Your task to perform on an android device: Open calendar and show me the first week of next month Image 0: 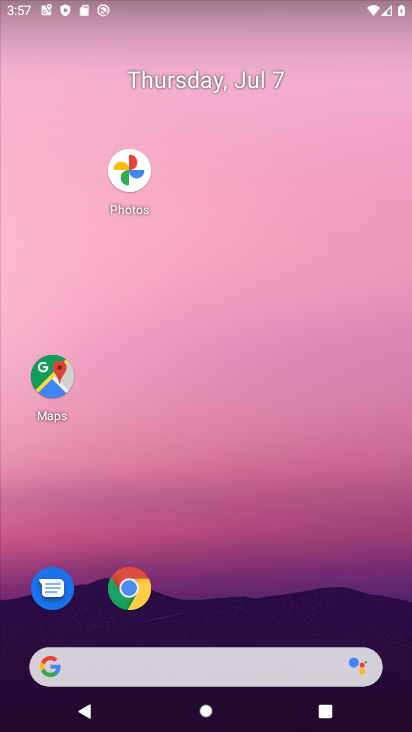
Step 0: click (126, 184)
Your task to perform on an android device: Open calendar and show me the first week of next month Image 1: 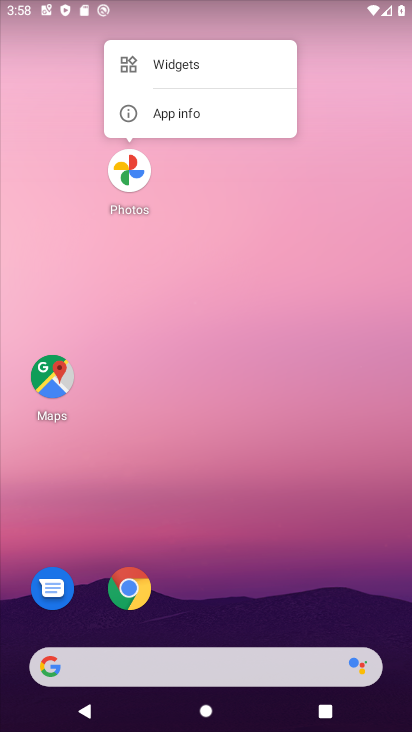
Step 1: drag from (151, 401) to (168, 16)
Your task to perform on an android device: Open calendar and show me the first week of next month Image 2: 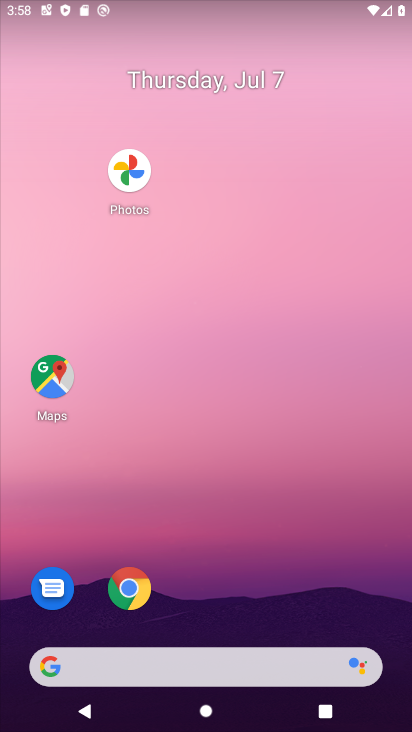
Step 2: drag from (268, 502) to (174, 8)
Your task to perform on an android device: Open calendar and show me the first week of next month Image 3: 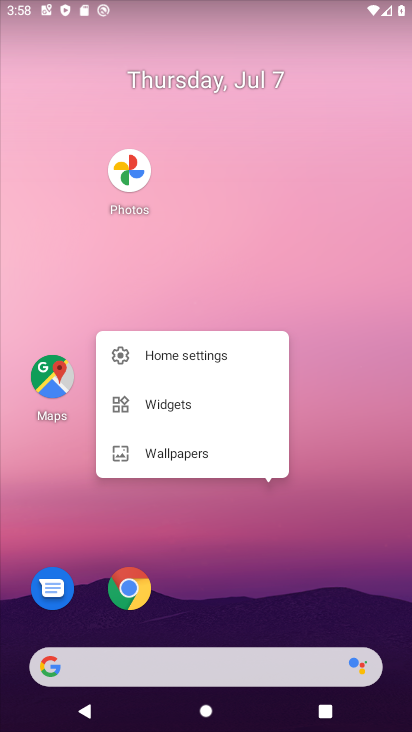
Step 3: drag from (186, 332) to (132, 1)
Your task to perform on an android device: Open calendar and show me the first week of next month Image 4: 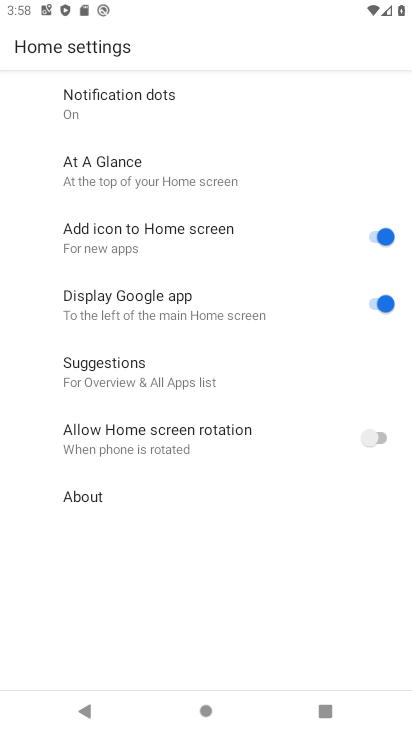
Step 4: drag from (190, 273) to (84, 6)
Your task to perform on an android device: Open calendar and show me the first week of next month Image 5: 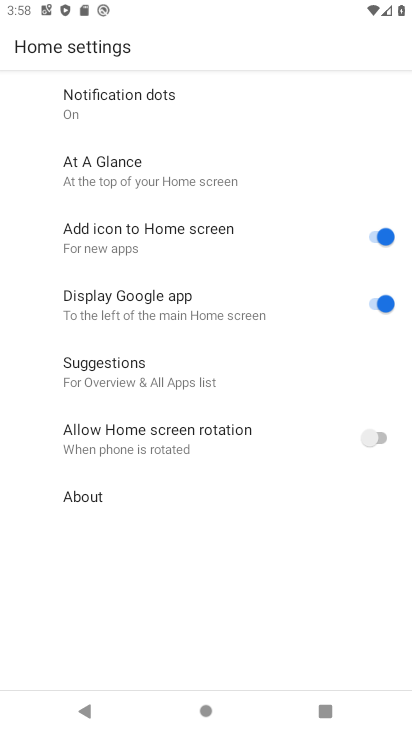
Step 5: click (236, 338)
Your task to perform on an android device: Open calendar and show me the first week of next month Image 6: 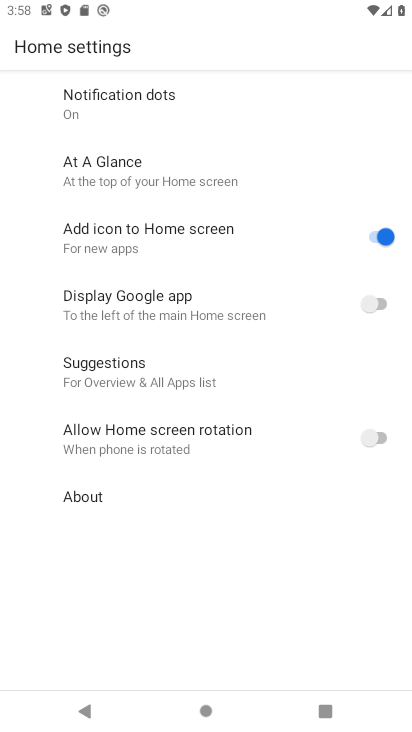
Step 6: drag from (134, 50) to (124, 3)
Your task to perform on an android device: Open calendar and show me the first week of next month Image 7: 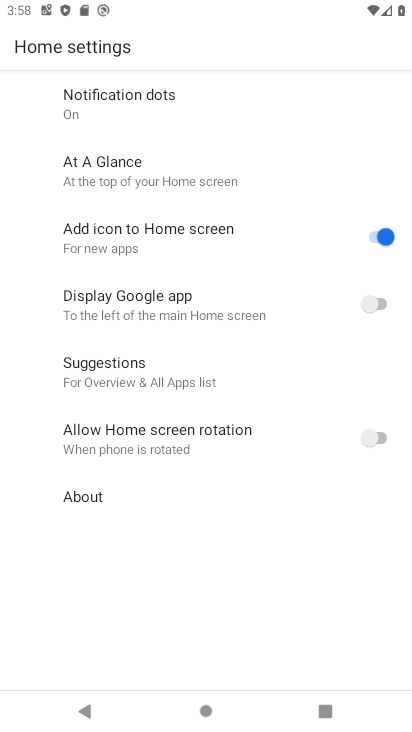
Step 7: drag from (162, 342) to (139, 11)
Your task to perform on an android device: Open calendar and show me the first week of next month Image 8: 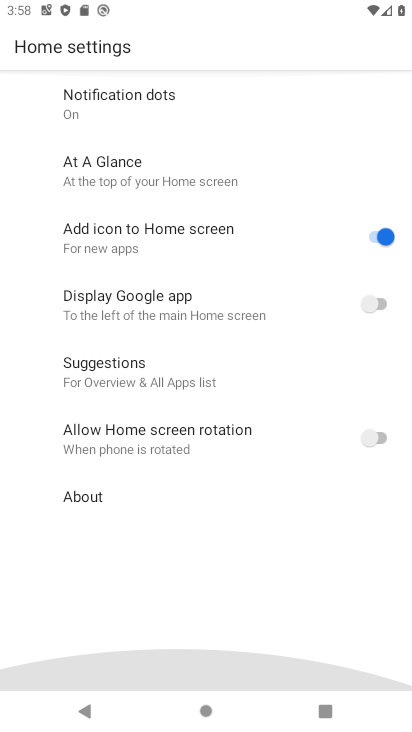
Step 8: press back button
Your task to perform on an android device: Open calendar and show me the first week of next month Image 9: 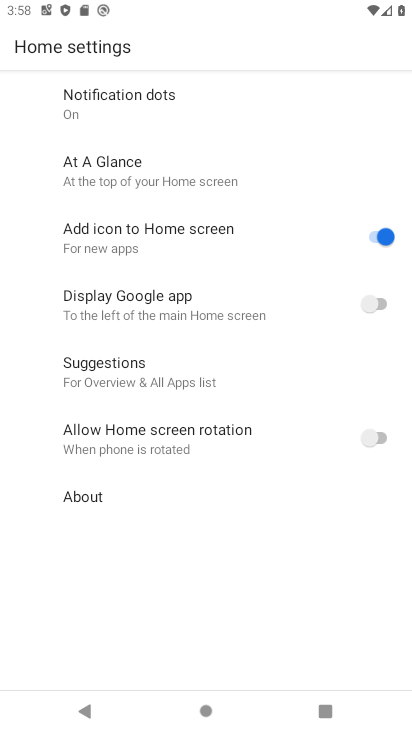
Step 9: press home button
Your task to perform on an android device: Open calendar and show me the first week of next month Image 10: 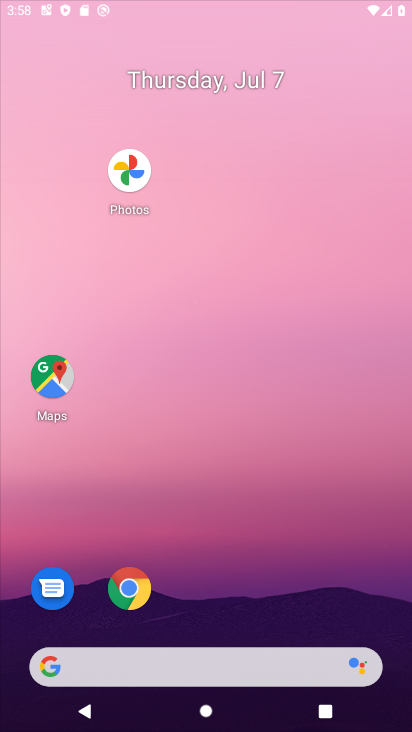
Step 10: press back button
Your task to perform on an android device: Open calendar and show me the first week of next month Image 11: 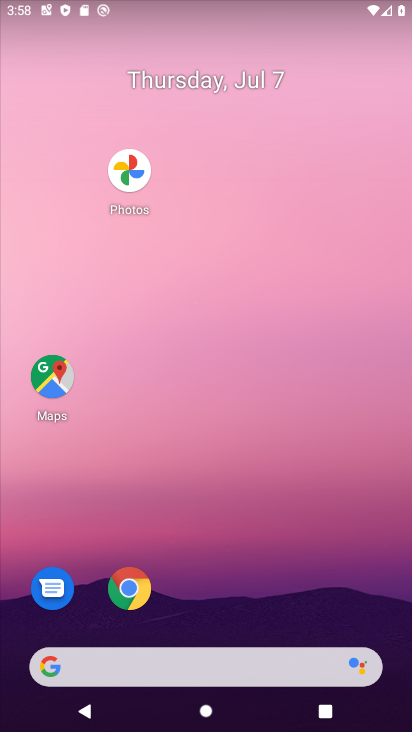
Step 11: drag from (249, 470) to (255, 3)
Your task to perform on an android device: Open calendar and show me the first week of next month Image 12: 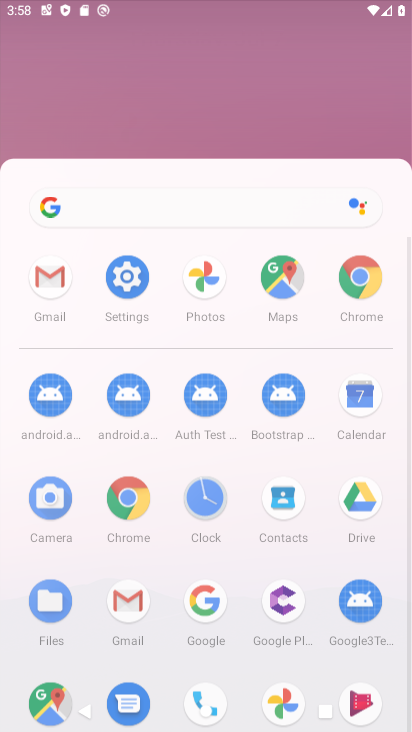
Step 12: drag from (310, 395) to (330, 40)
Your task to perform on an android device: Open calendar and show me the first week of next month Image 13: 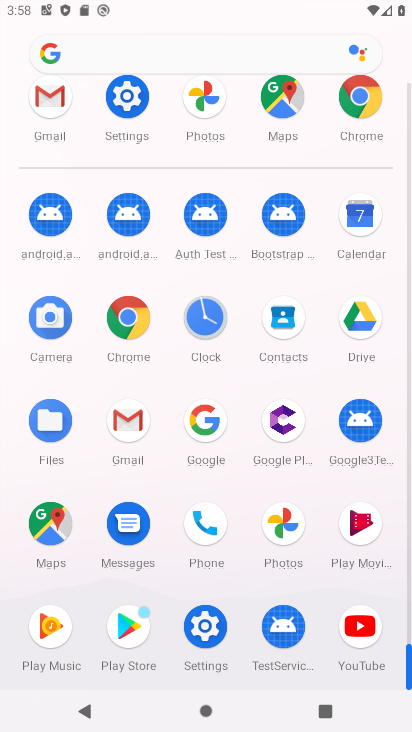
Step 13: click (373, 215)
Your task to perform on an android device: Open calendar and show me the first week of next month Image 14: 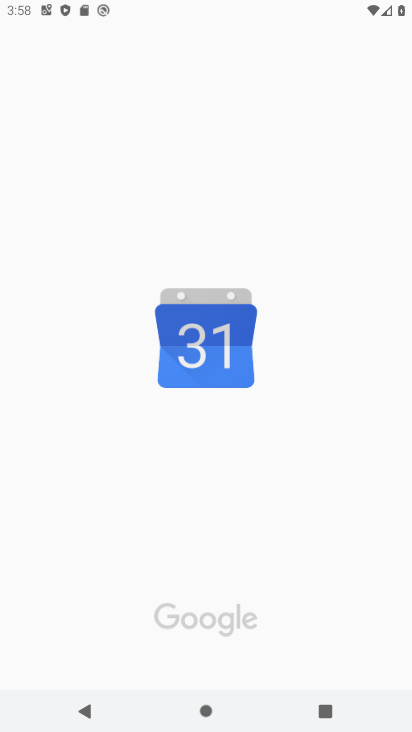
Step 14: click (369, 215)
Your task to perform on an android device: Open calendar and show me the first week of next month Image 15: 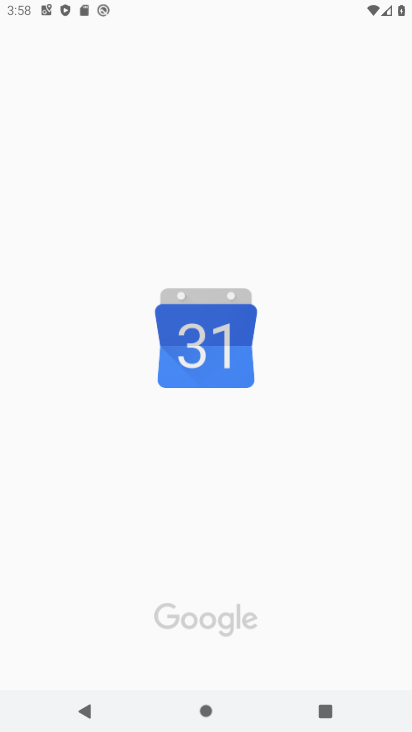
Step 15: drag from (358, 216) to (375, 187)
Your task to perform on an android device: Open calendar and show me the first week of next month Image 16: 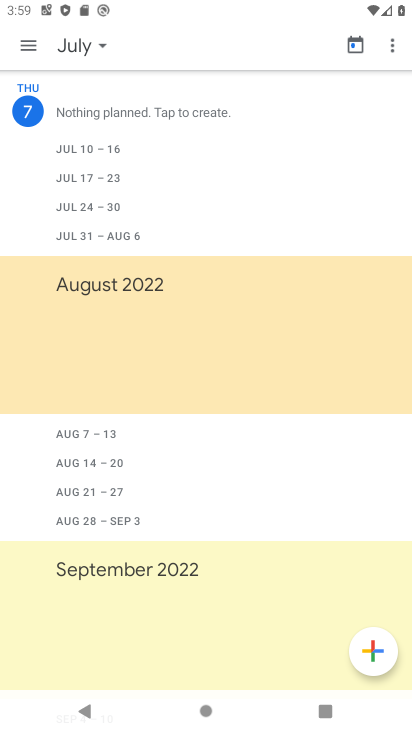
Step 16: click (374, 186)
Your task to perform on an android device: Open calendar and show me the first week of next month Image 17: 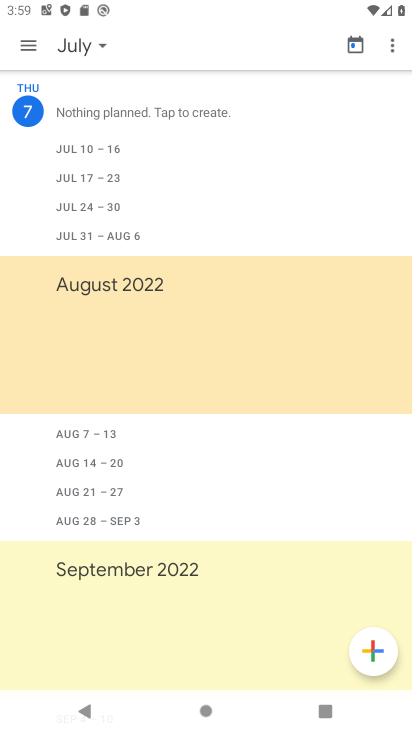
Step 17: click (366, 214)
Your task to perform on an android device: Open calendar and show me the first week of next month Image 18: 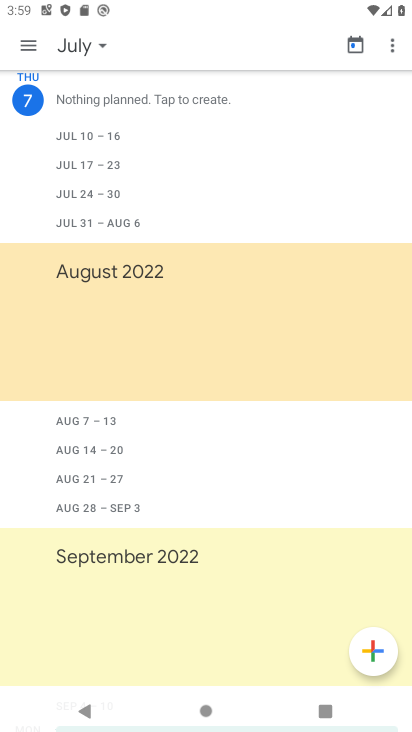
Step 18: click (364, 209)
Your task to perform on an android device: Open calendar and show me the first week of next month Image 19: 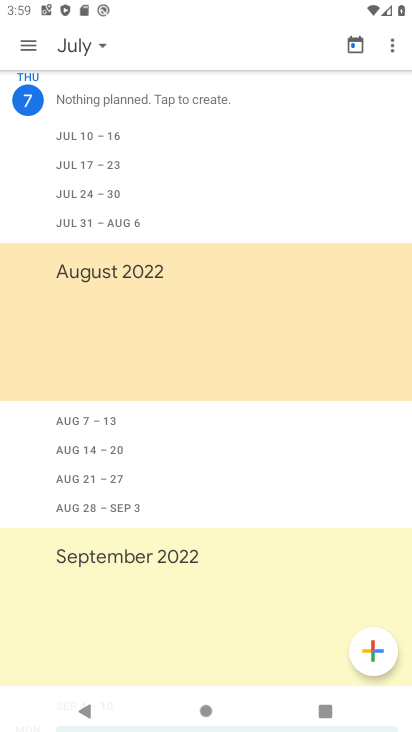
Step 19: click (94, 413)
Your task to perform on an android device: Open calendar and show me the first week of next month Image 20: 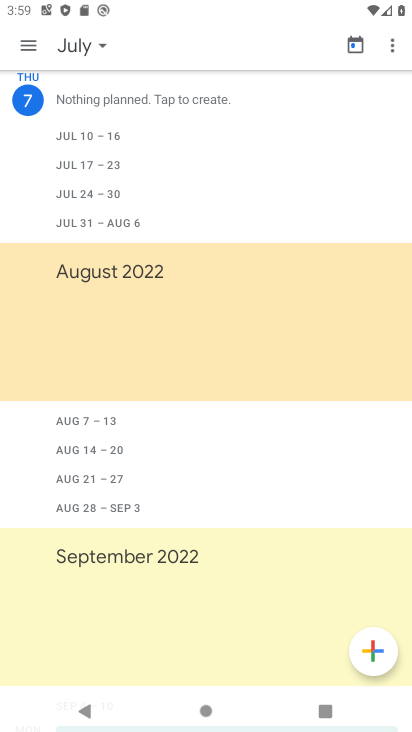
Step 20: click (85, 418)
Your task to perform on an android device: Open calendar and show me the first week of next month Image 21: 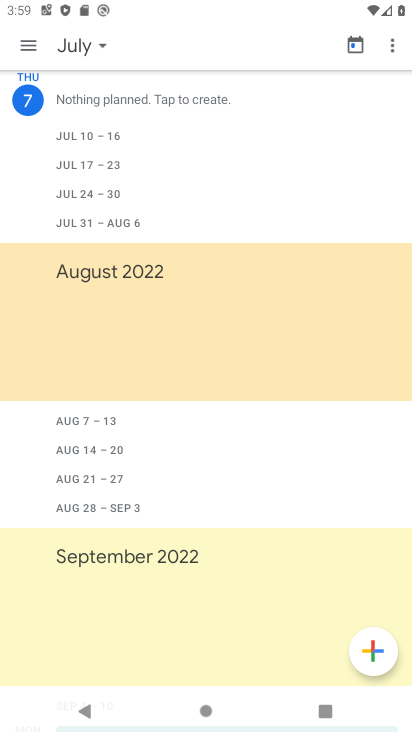
Step 21: task complete